Your task to perform on an android device: change your default location settings in chrome Image 0: 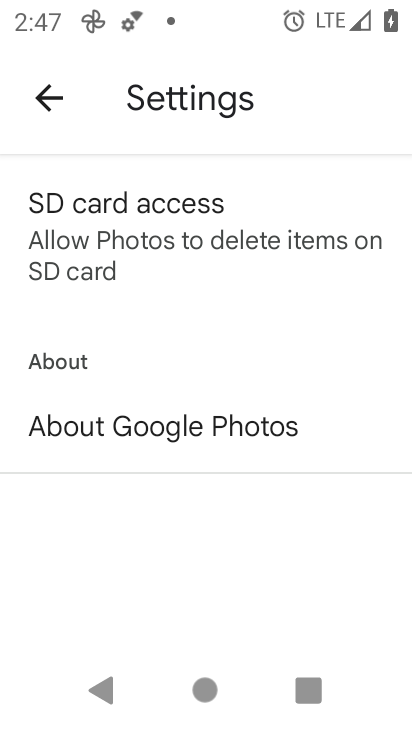
Step 0: press home button
Your task to perform on an android device: change your default location settings in chrome Image 1: 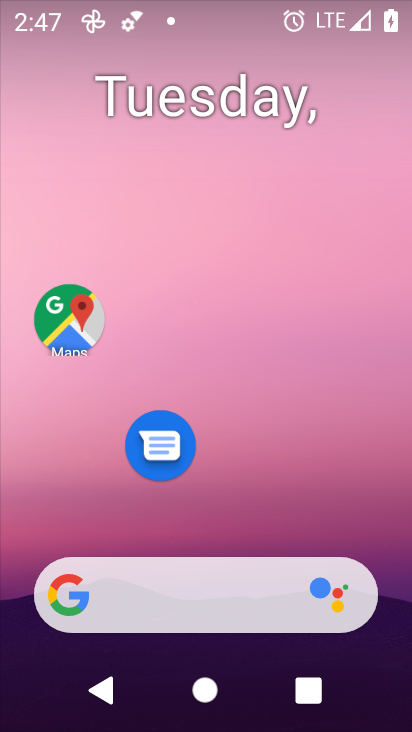
Step 1: drag from (262, 462) to (281, 84)
Your task to perform on an android device: change your default location settings in chrome Image 2: 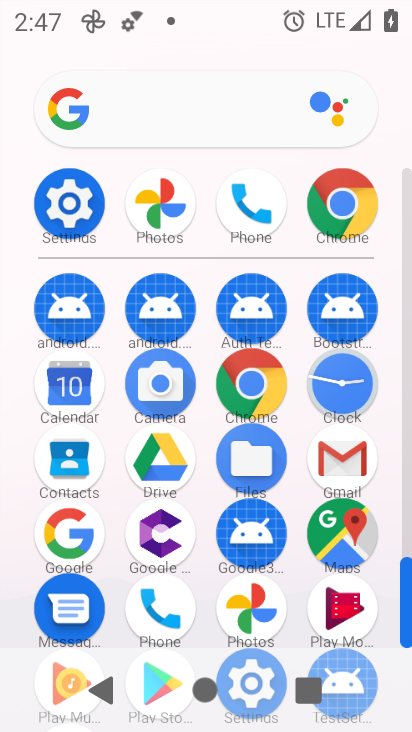
Step 2: click (343, 199)
Your task to perform on an android device: change your default location settings in chrome Image 3: 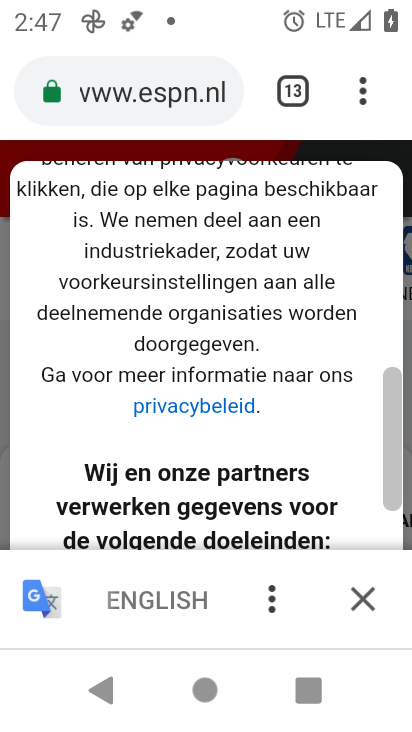
Step 3: click (367, 89)
Your task to perform on an android device: change your default location settings in chrome Image 4: 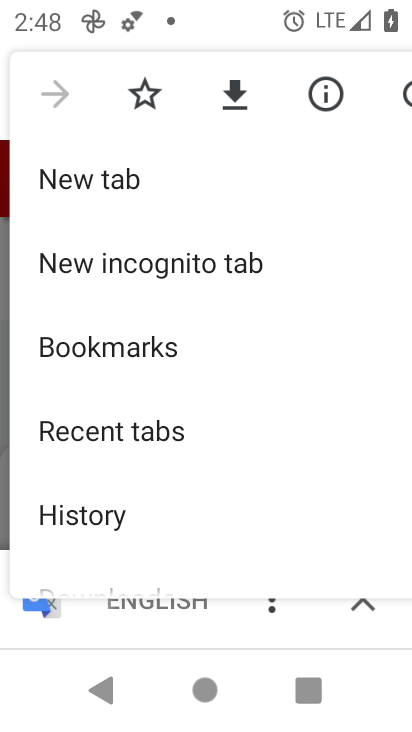
Step 4: drag from (236, 478) to (193, 225)
Your task to perform on an android device: change your default location settings in chrome Image 5: 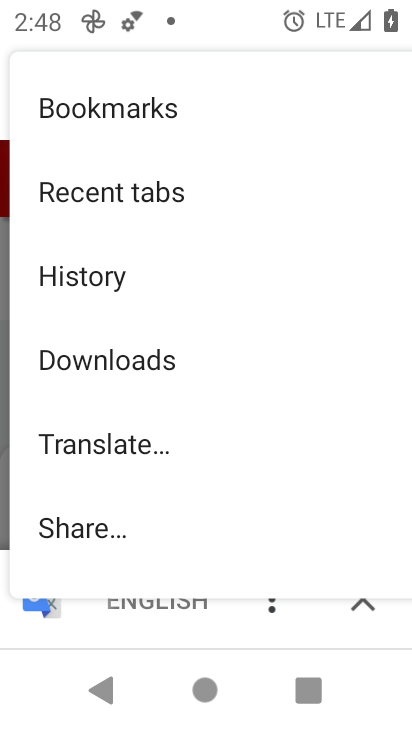
Step 5: drag from (223, 428) to (206, 163)
Your task to perform on an android device: change your default location settings in chrome Image 6: 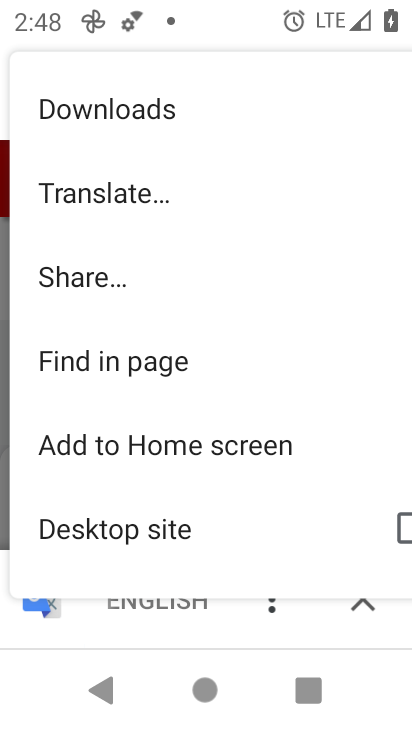
Step 6: drag from (195, 360) to (177, 169)
Your task to perform on an android device: change your default location settings in chrome Image 7: 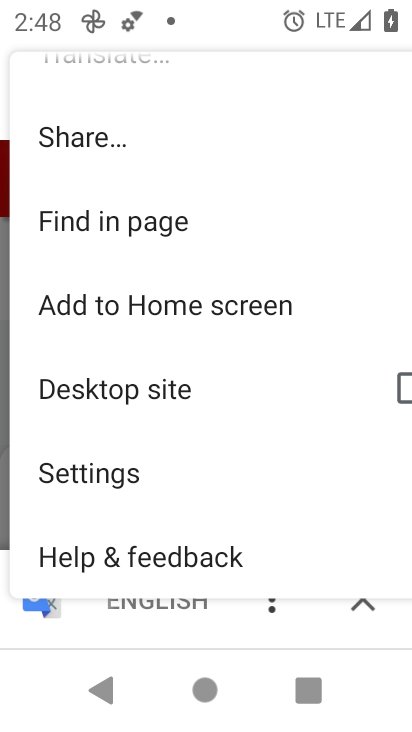
Step 7: click (103, 466)
Your task to perform on an android device: change your default location settings in chrome Image 8: 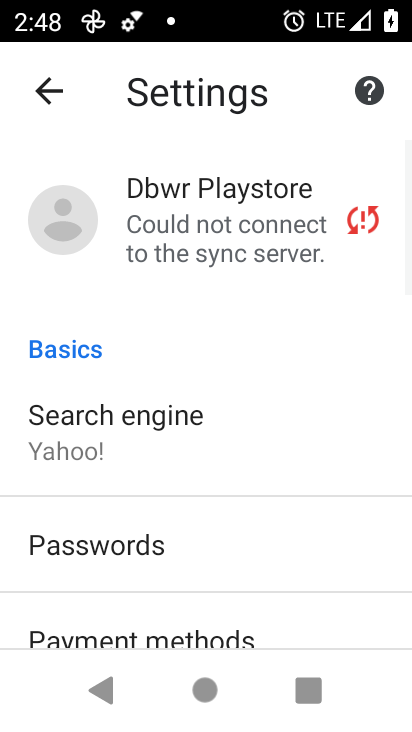
Step 8: drag from (287, 458) to (254, 172)
Your task to perform on an android device: change your default location settings in chrome Image 9: 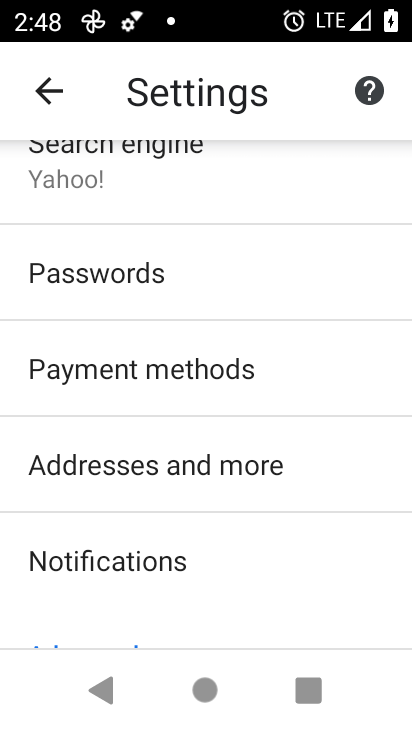
Step 9: drag from (256, 531) to (238, 194)
Your task to perform on an android device: change your default location settings in chrome Image 10: 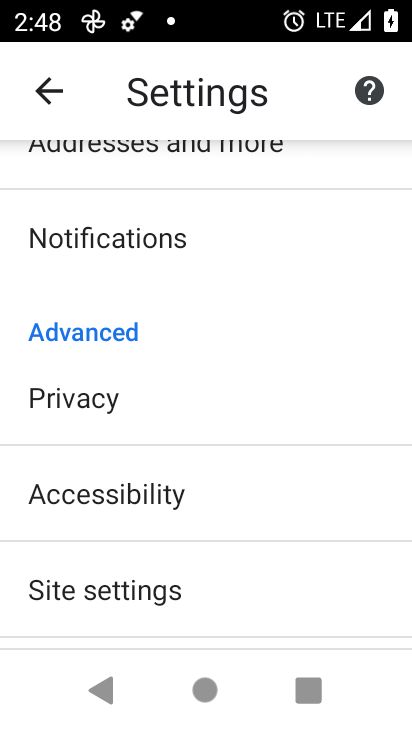
Step 10: drag from (210, 558) to (188, 269)
Your task to perform on an android device: change your default location settings in chrome Image 11: 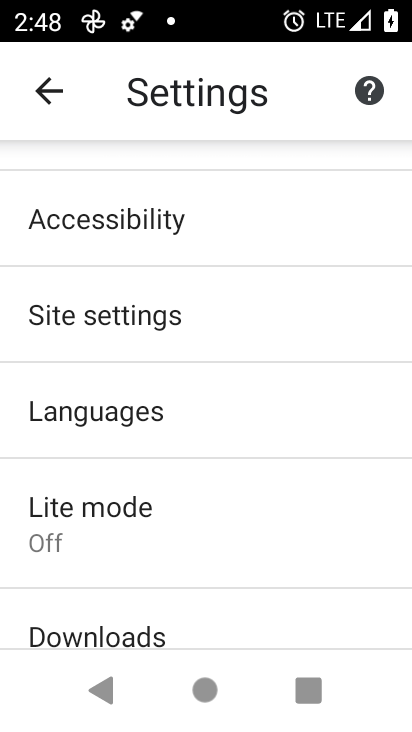
Step 11: drag from (208, 554) to (202, 371)
Your task to perform on an android device: change your default location settings in chrome Image 12: 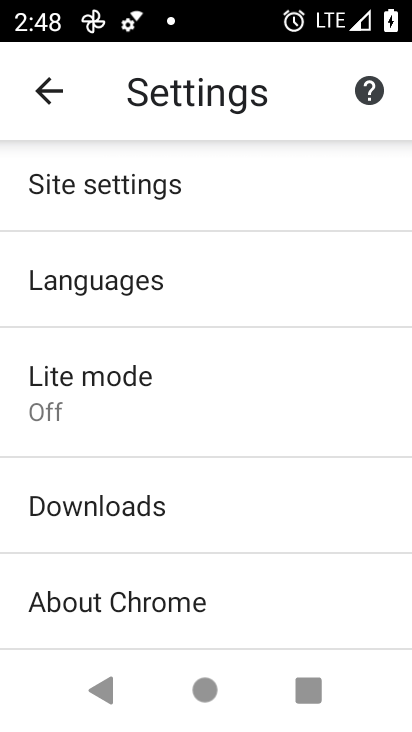
Step 12: click (126, 177)
Your task to perform on an android device: change your default location settings in chrome Image 13: 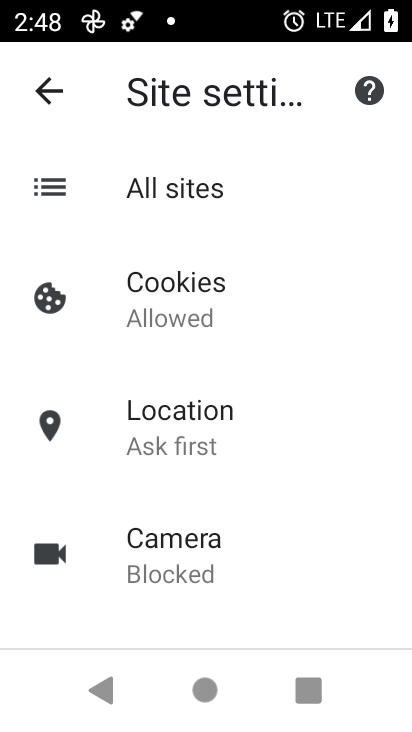
Step 13: drag from (297, 466) to (293, 316)
Your task to perform on an android device: change your default location settings in chrome Image 14: 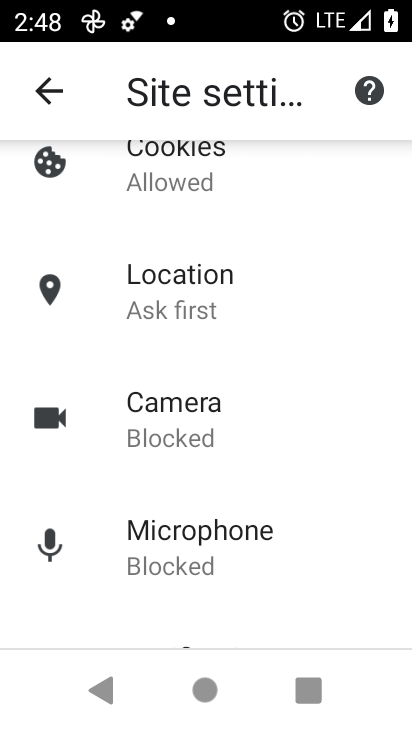
Step 14: click (191, 267)
Your task to perform on an android device: change your default location settings in chrome Image 15: 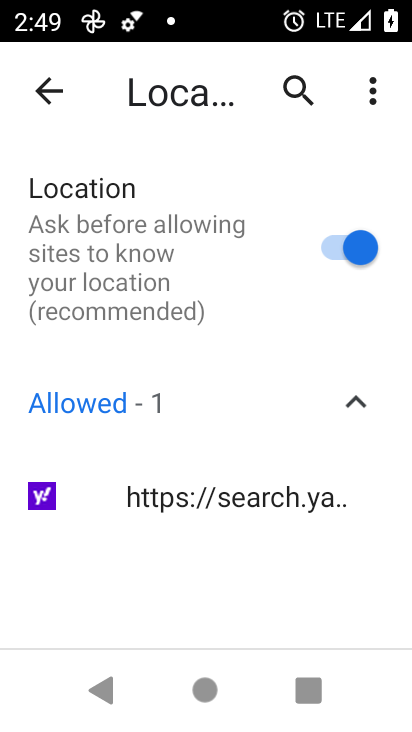
Step 15: click (347, 253)
Your task to perform on an android device: change your default location settings in chrome Image 16: 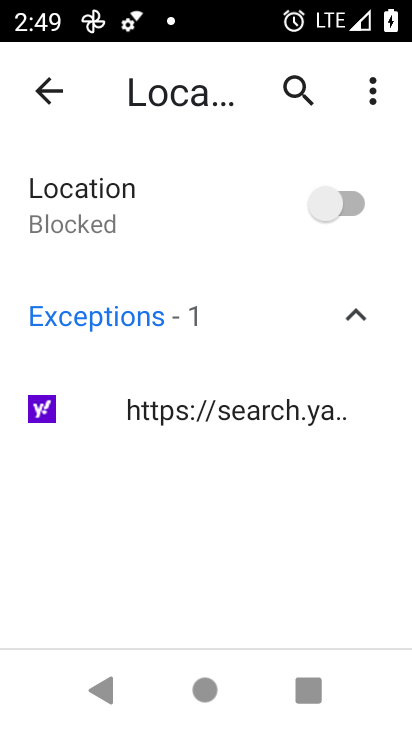
Step 16: task complete